Your task to perform on an android device: Open the clock Image 0: 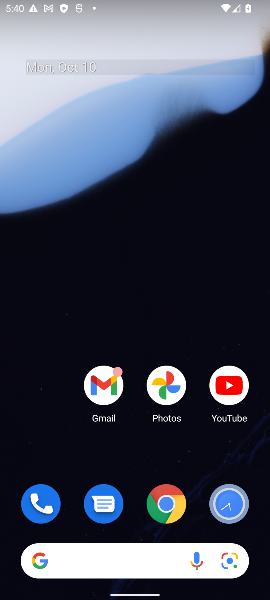
Step 0: drag from (114, 245) to (104, 0)
Your task to perform on an android device: Open the clock Image 1: 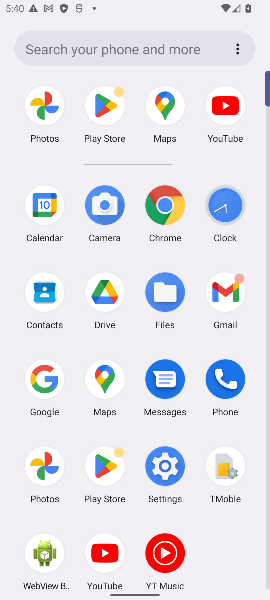
Step 1: click (238, 198)
Your task to perform on an android device: Open the clock Image 2: 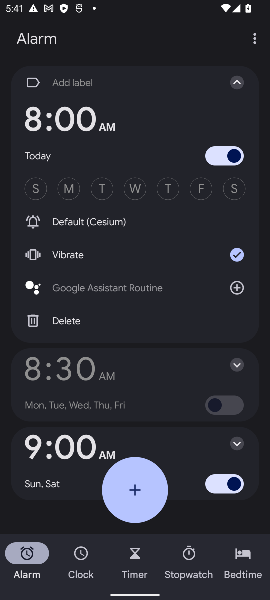
Step 2: task complete